Your task to perform on an android device: toggle notification dots Image 0: 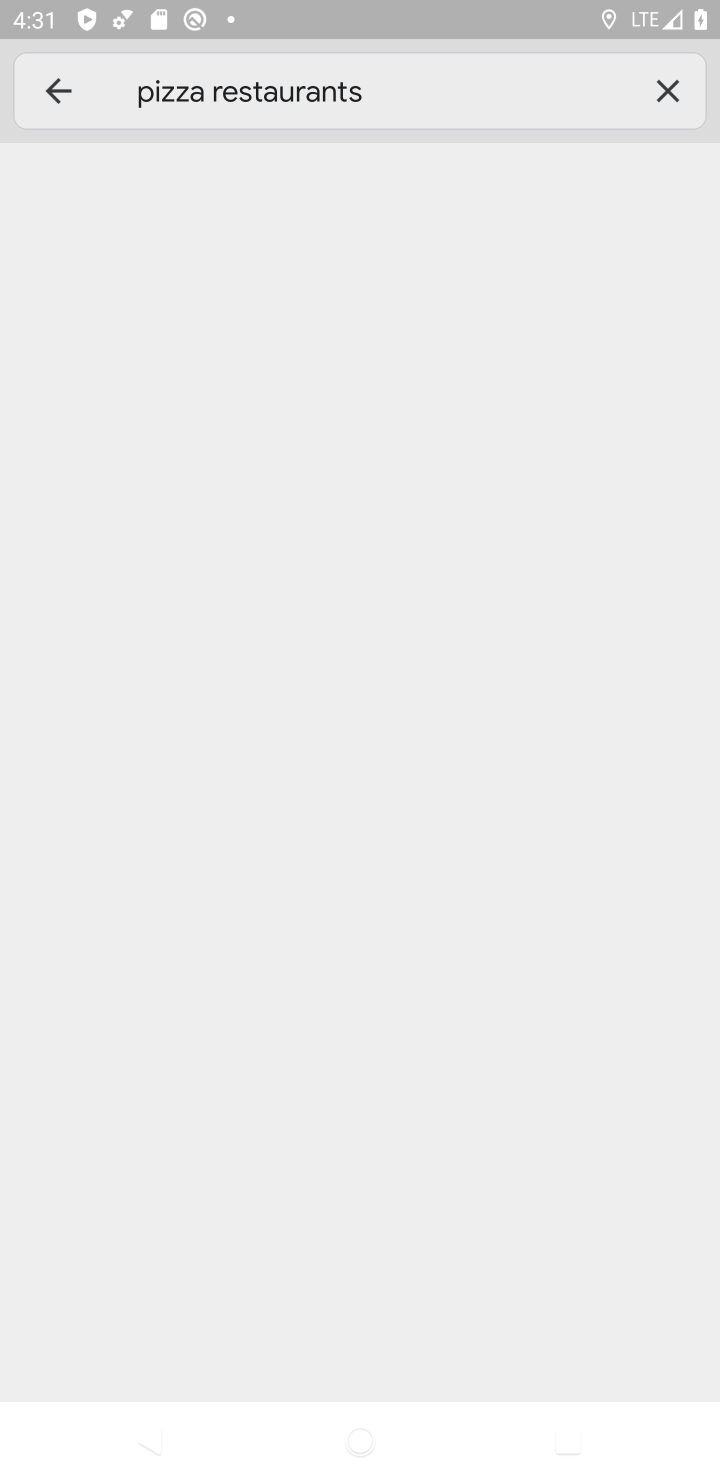
Step 0: press back button
Your task to perform on an android device: toggle notification dots Image 1: 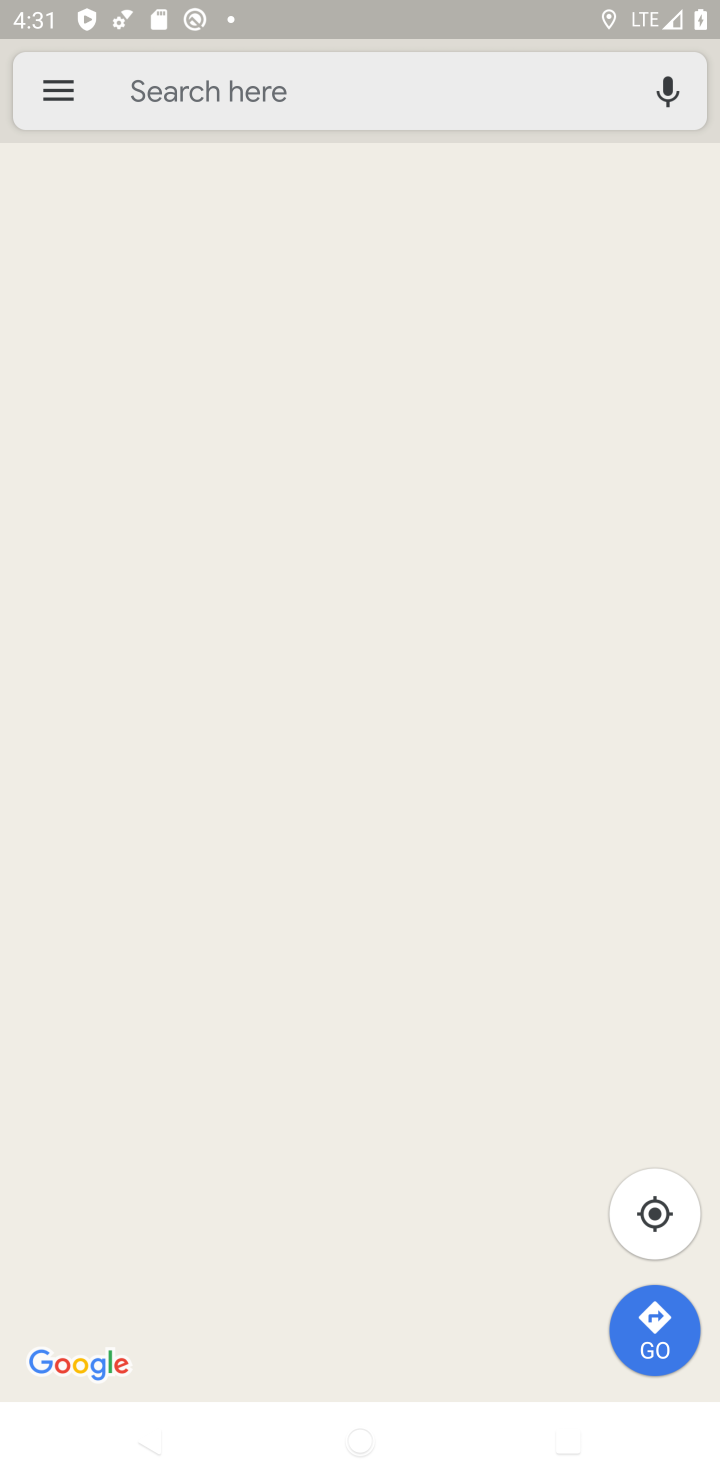
Step 1: press home button
Your task to perform on an android device: toggle notification dots Image 2: 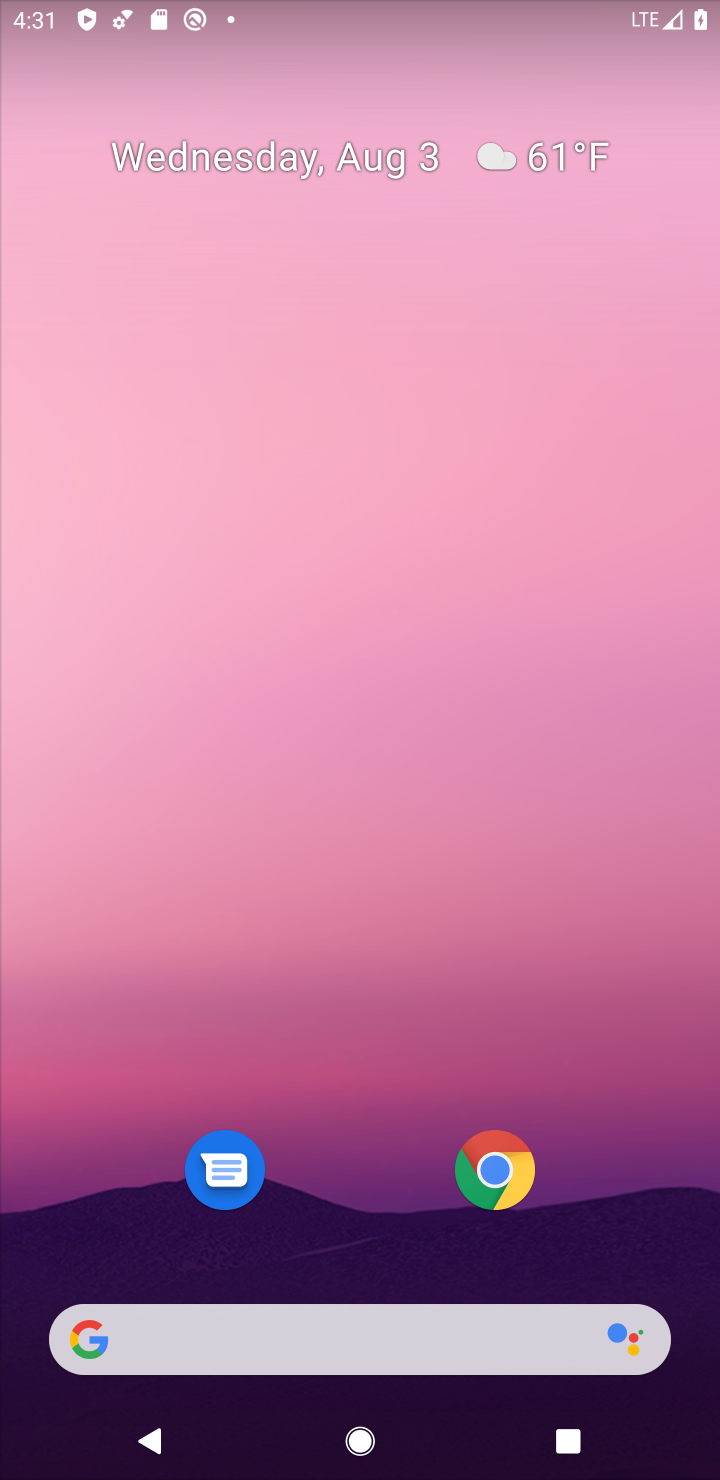
Step 2: drag from (315, 1184) to (499, 146)
Your task to perform on an android device: toggle notification dots Image 3: 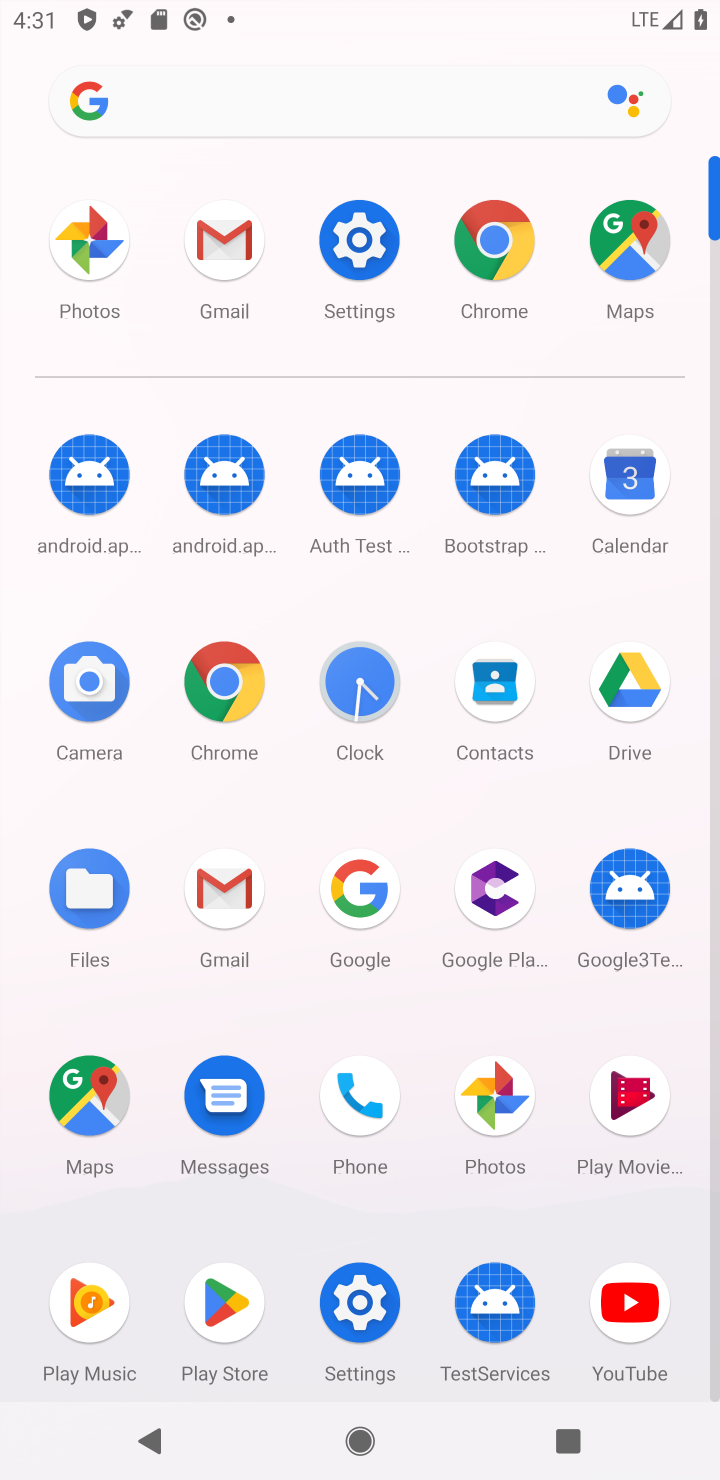
Step 3: click (353, 247)
Your task to perform on an android device: toggle notification dots Image 4: 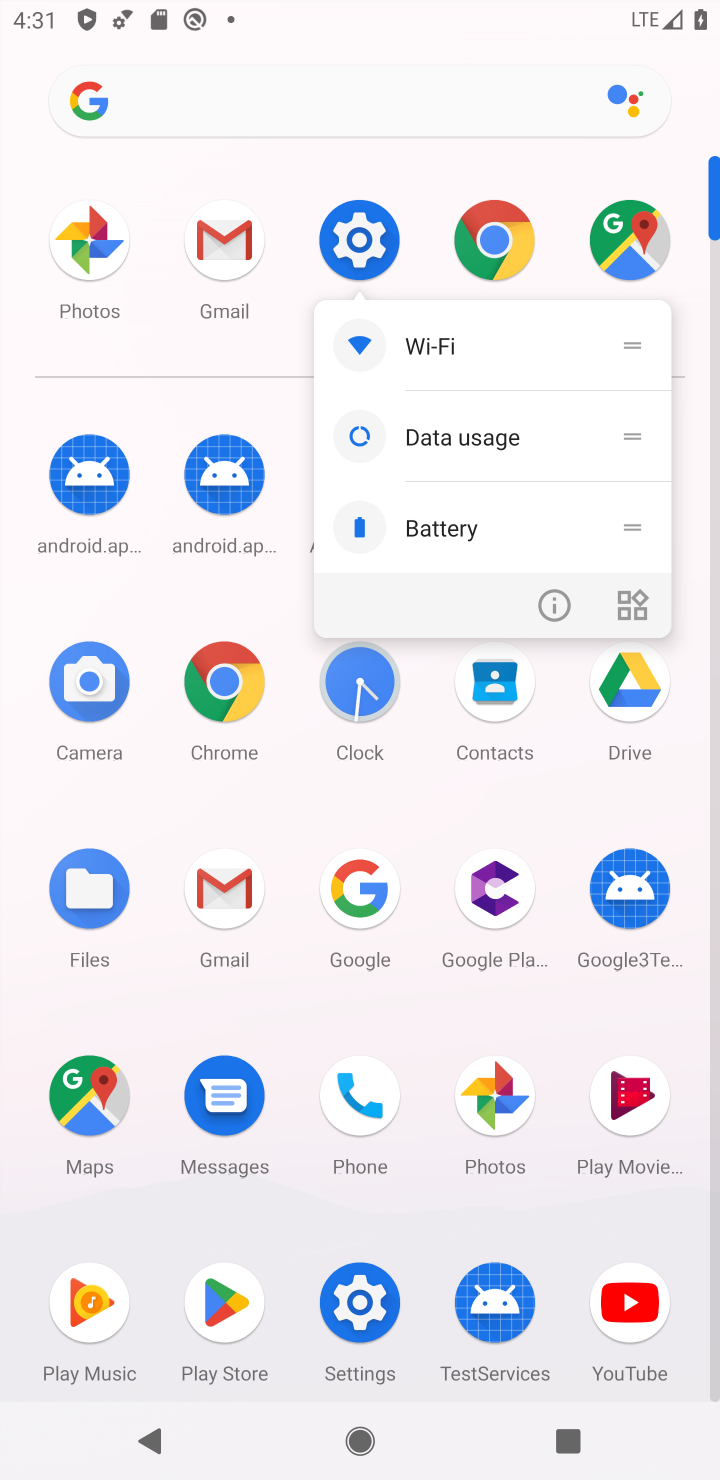
Step 4: click (361, 228)
Your task to perform on an android device: toggle notification dots Image 5: 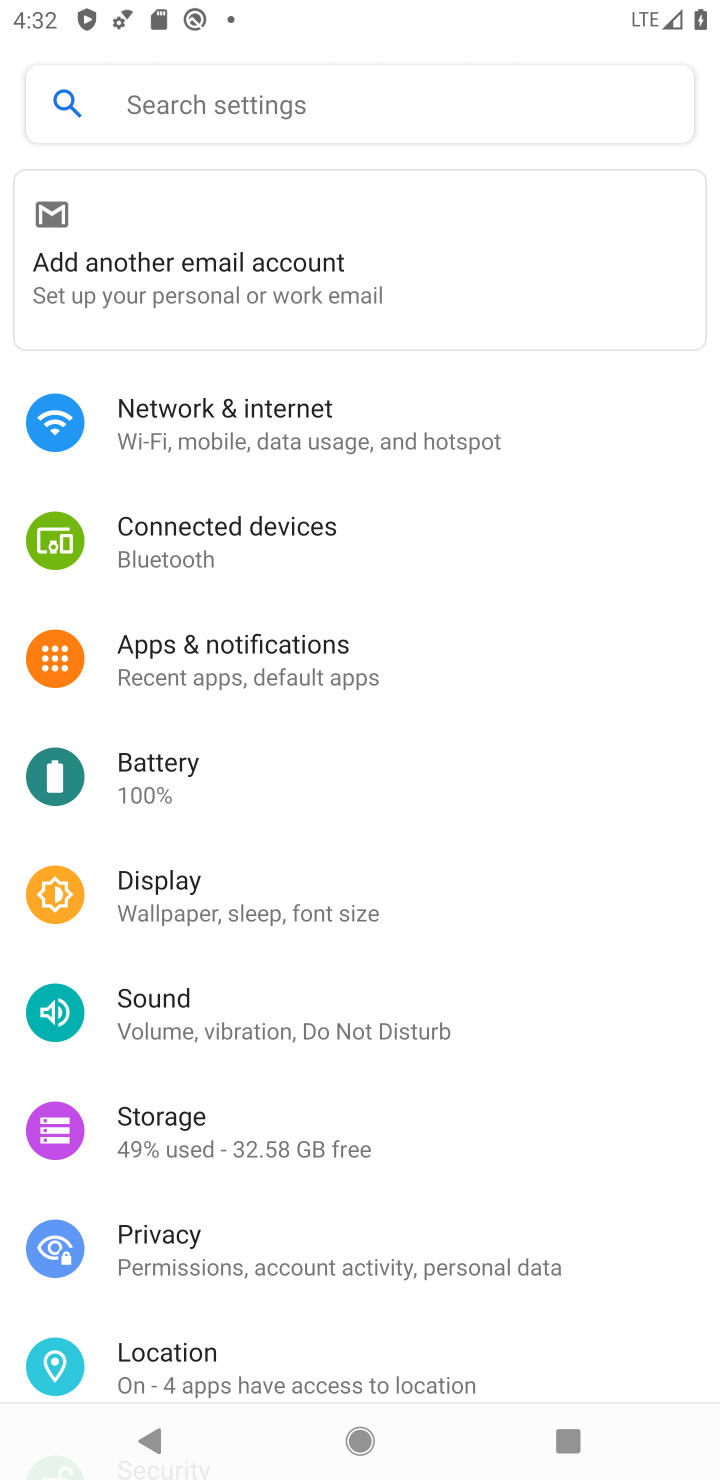
Step 5: click (193, 486)
Your task to perform on an android device: toggle notification dots Image 6: 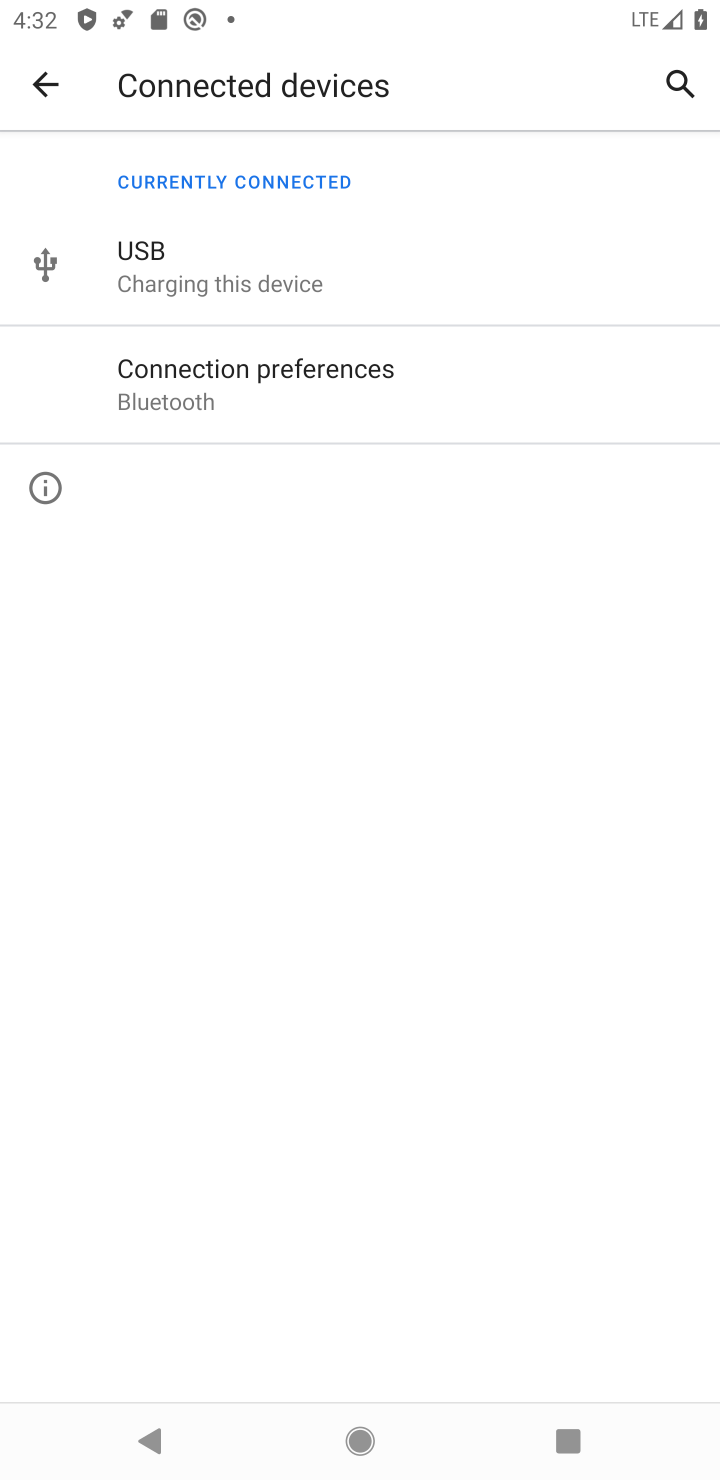
Step 6: click (44, 69)
Your task to perform on an android device: toggle notification dots Image 7: 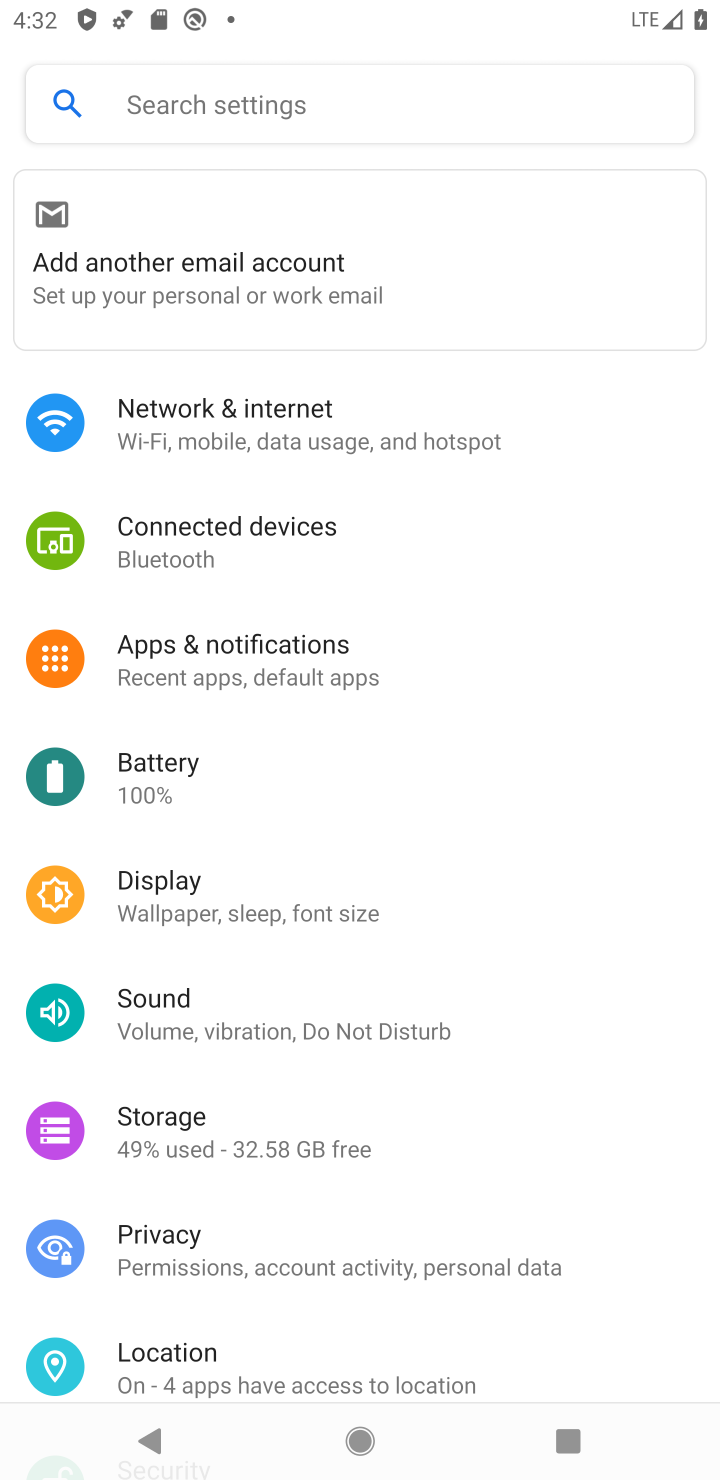
Step 7: click (187, 663)
Your task to perform on an android device: toggle notification dots Image 8: 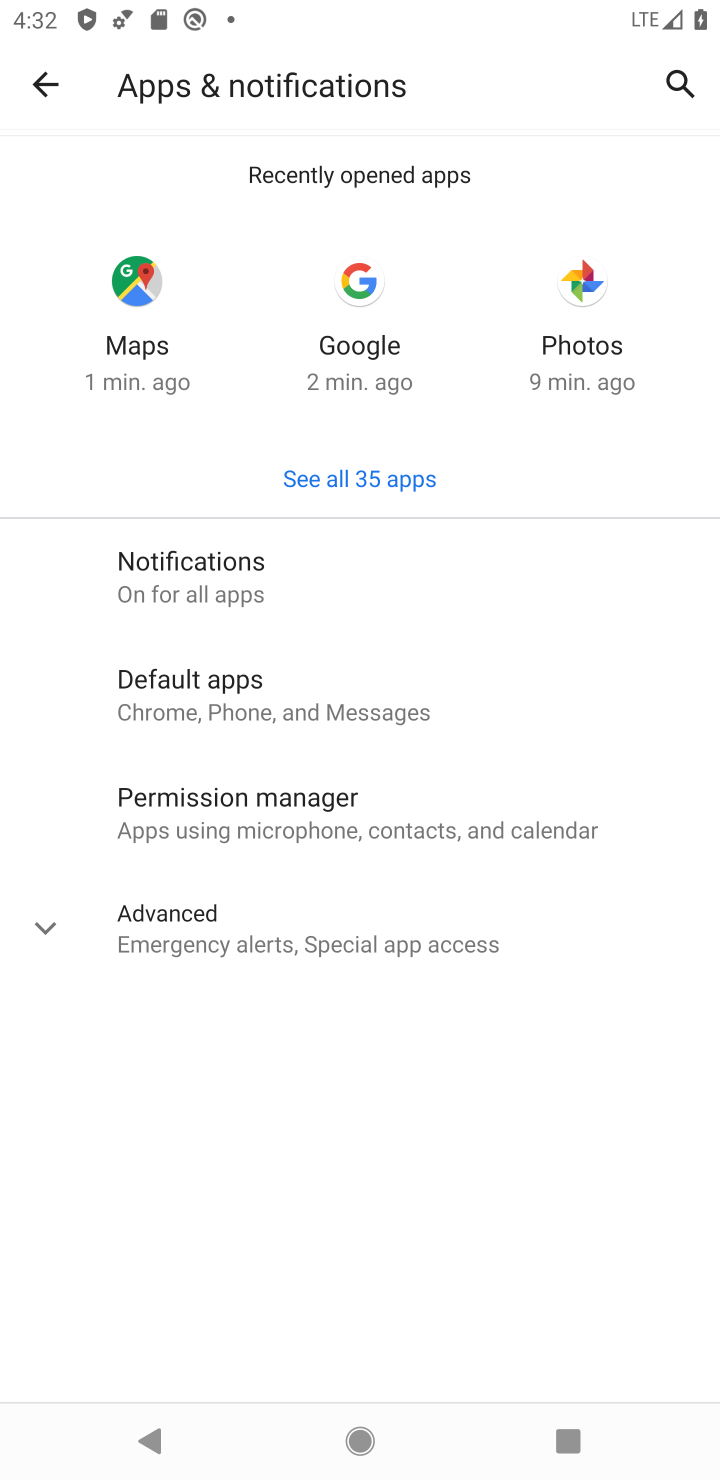
Step 8: click (187, 593)
Your task to perform on an android device: toggle notification dots Image 9: 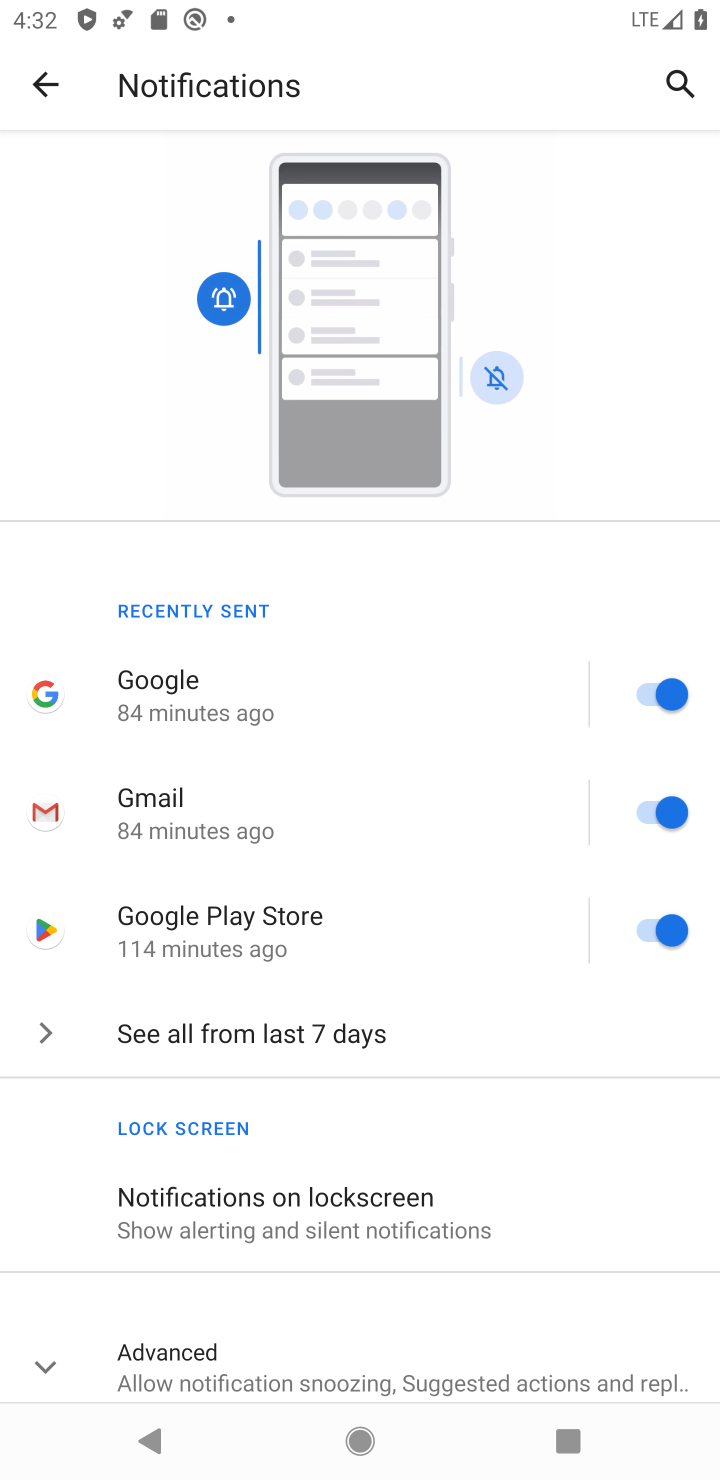
Step 9: click (529, 532)
Your task to perform on an android device: toggle notification dots Image 10: 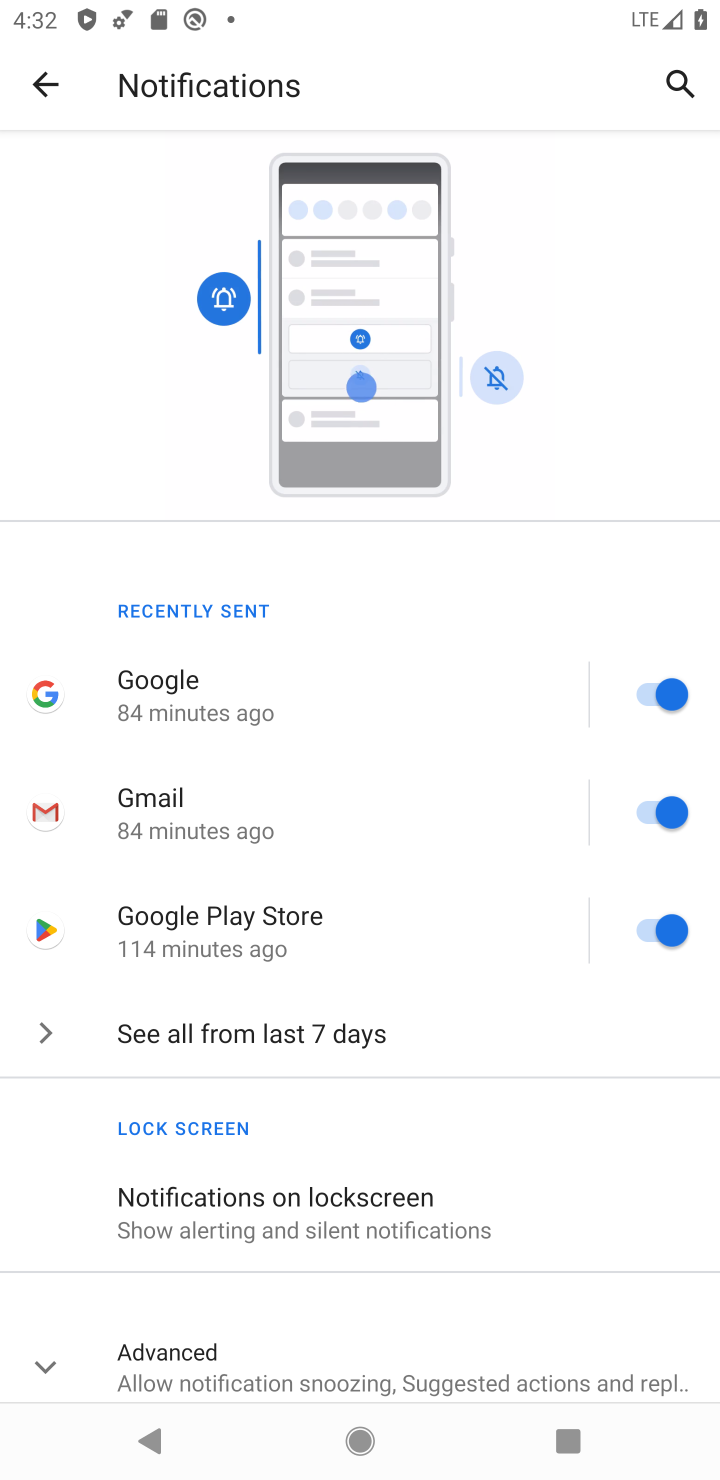
Step 10: click (158, 1346)
Your task to perform on an android device: toggle notification dots Image 11: 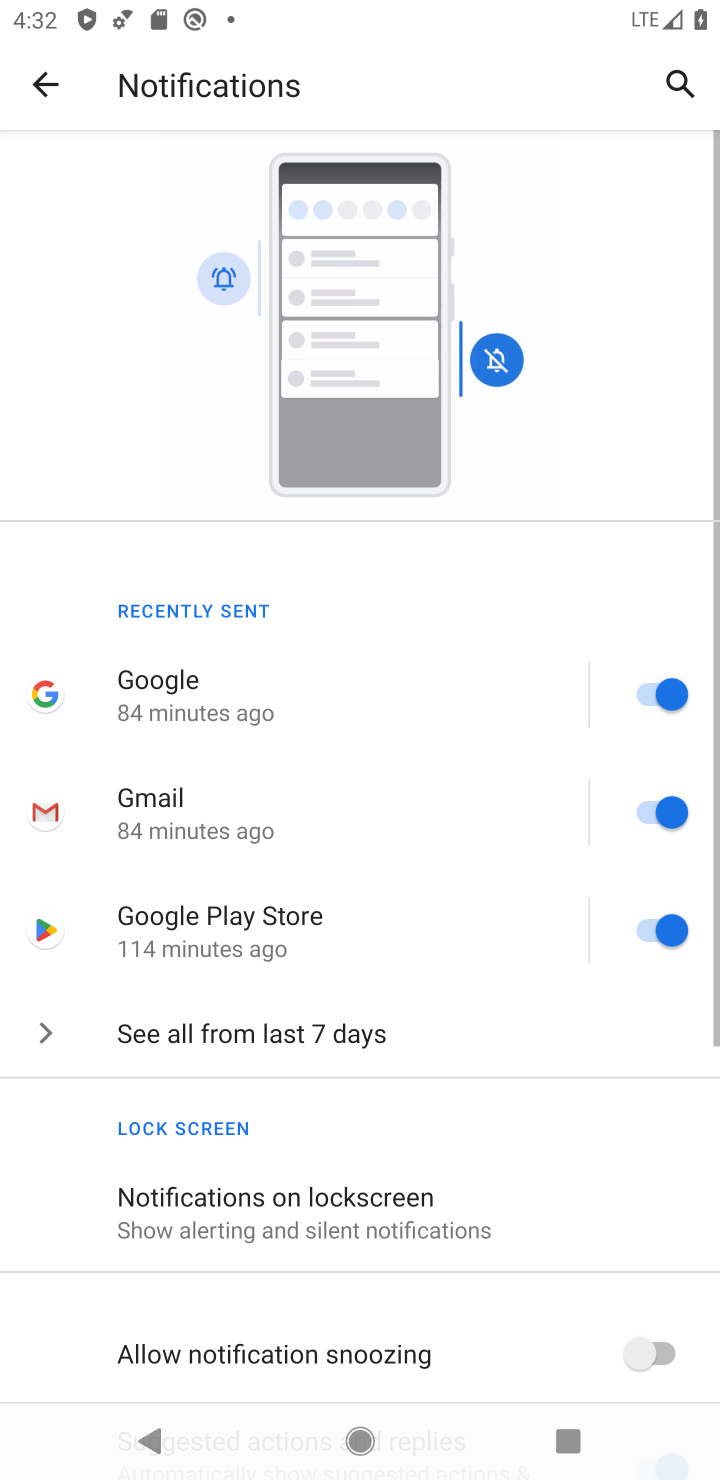
Step 11: drag from (197, 1286) to (286, 617)
Your task to perform on an android device: toggle notification dots Image 12: 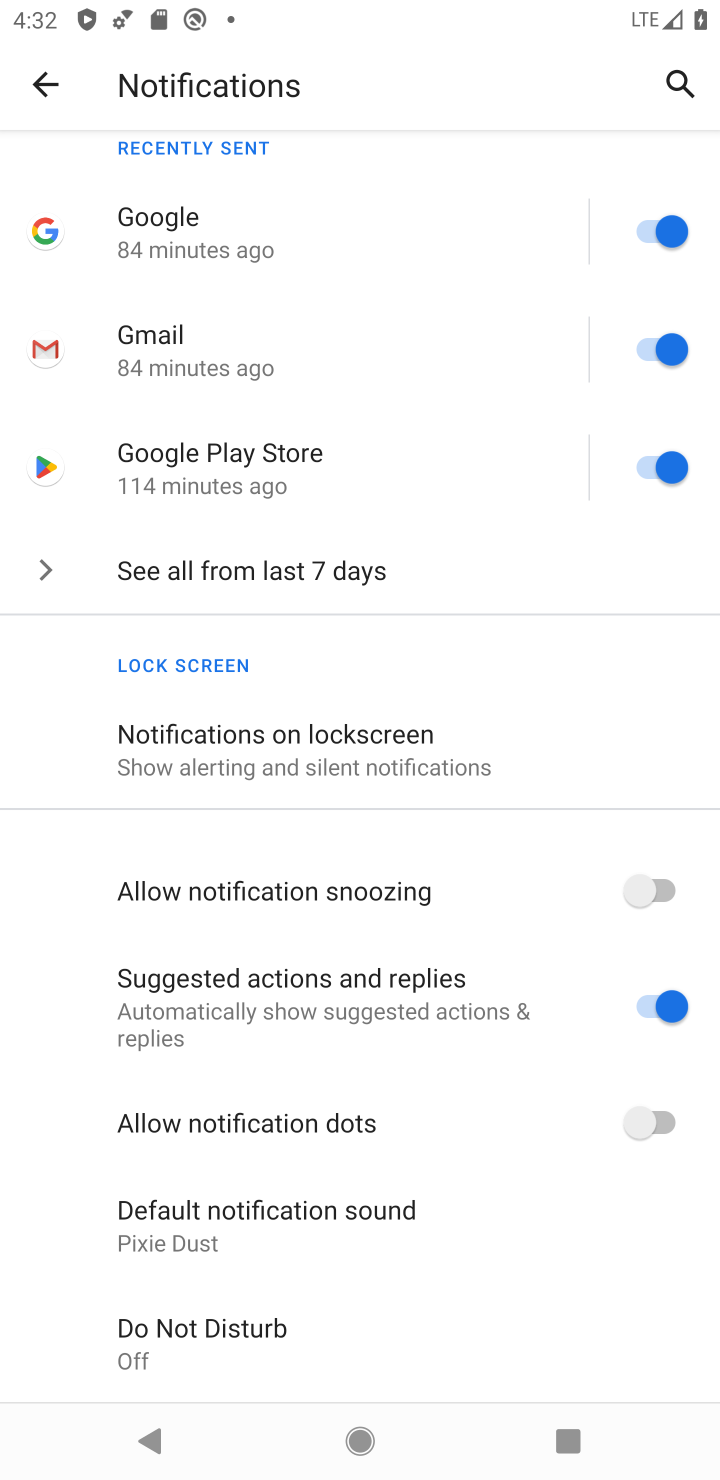
Step 12: drag from (382, 1252) to (533, 448)
Your task to perform on an android device: toggle notification dots Image 13: 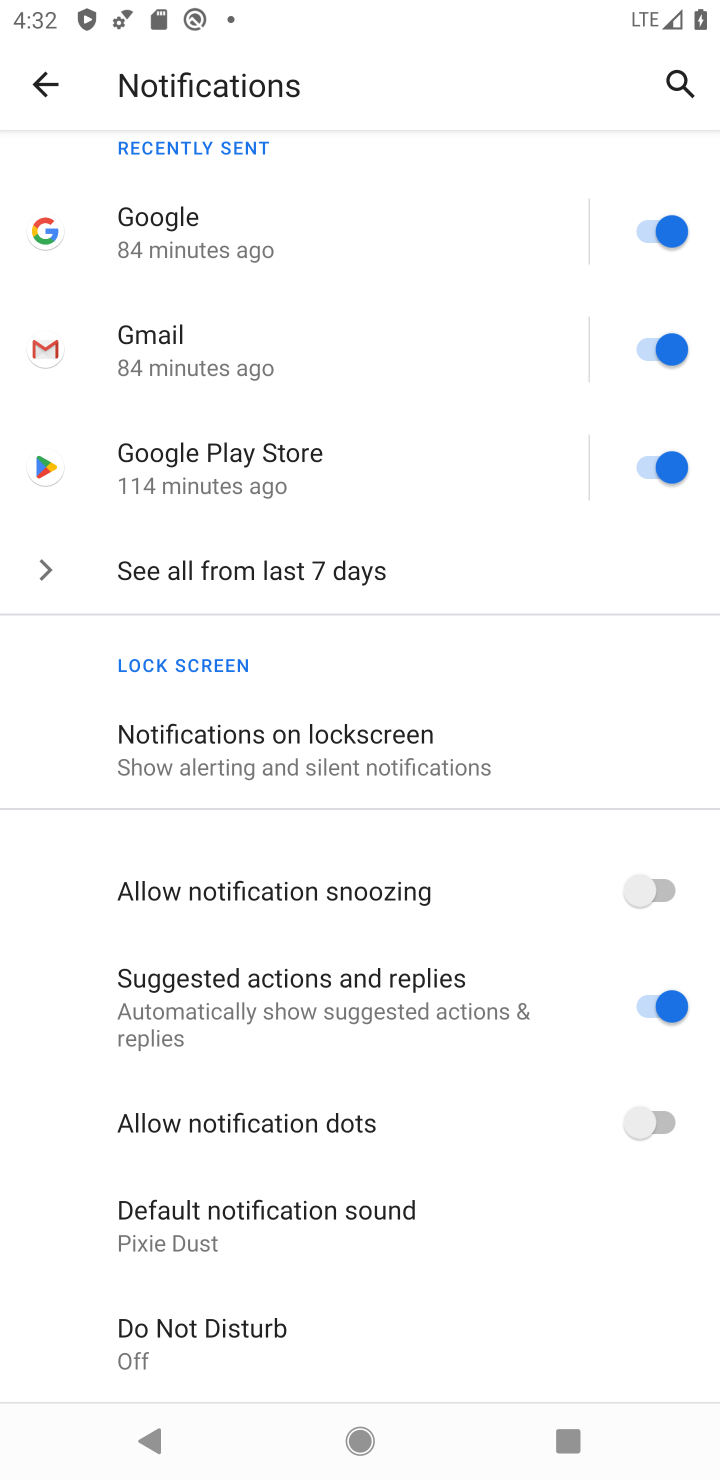
Step 13: click (667, 1116)
Your task to perform on an android device: toggle notification dots Image 14: 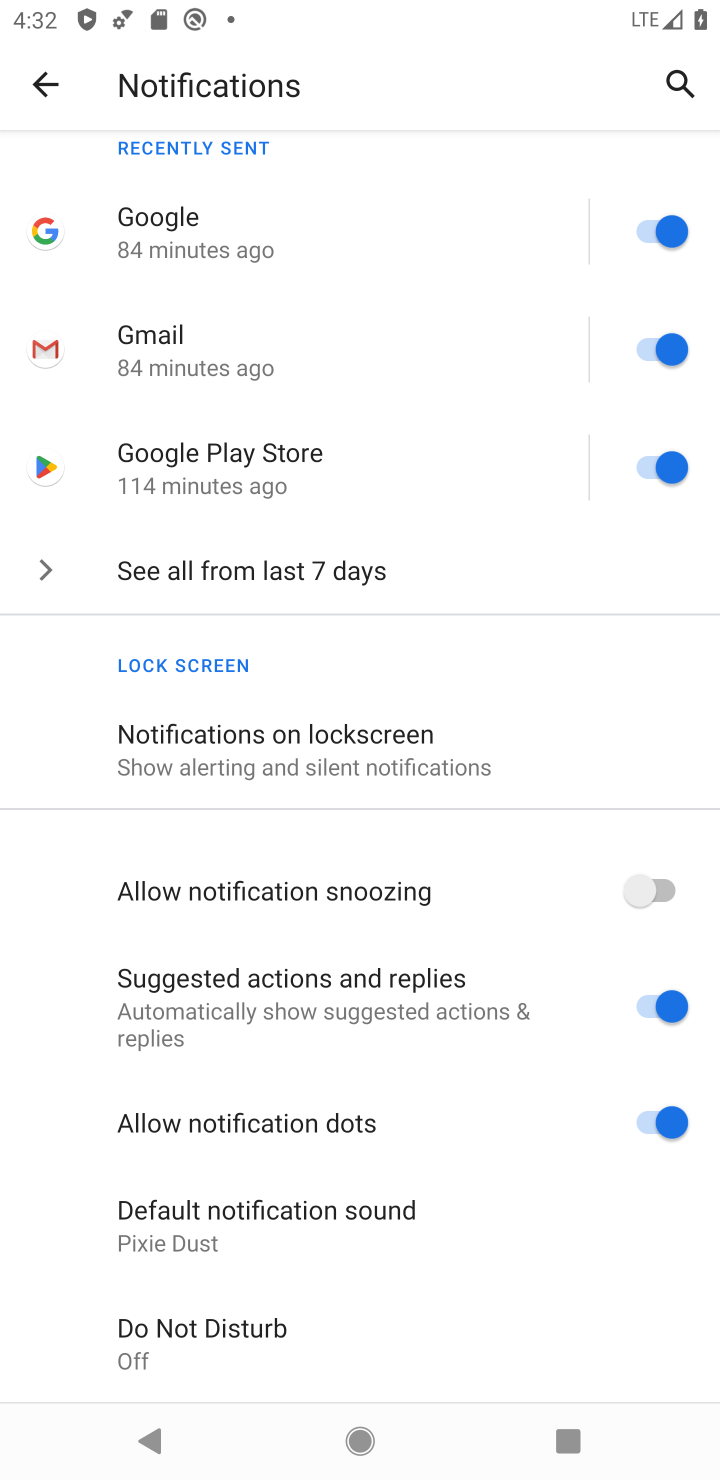
Step 14: task complete